Your task to perform on an android device: Go to display settings Image 0: 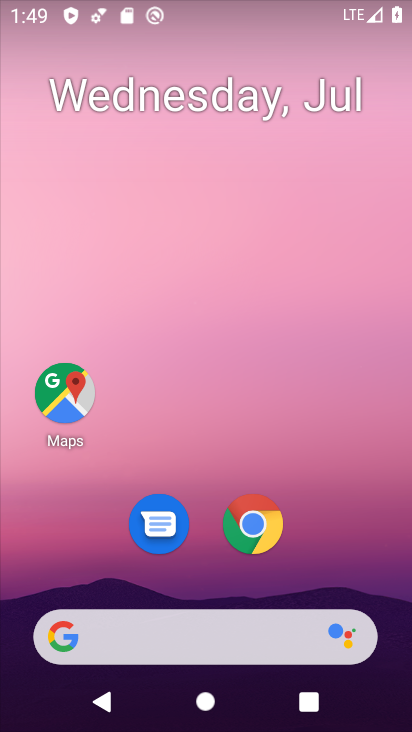
Step 0: drag from (319, 542) to (311, 39)
Your task to perform on an android device: Go to display settings Image 1: 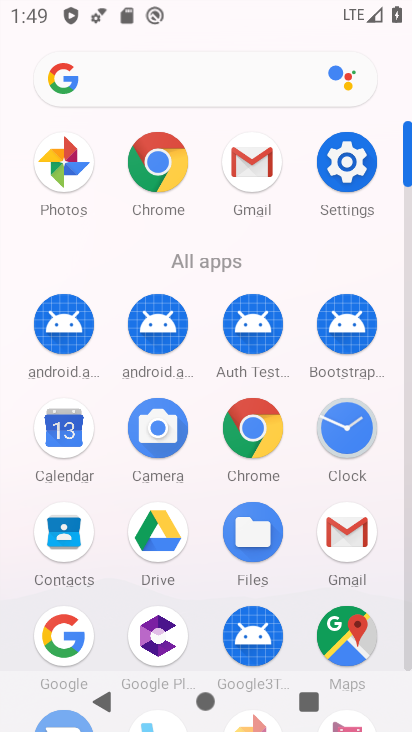
Step 1: click (359, 163)
Your task to perform on an android device: Go to display settings Image 2: 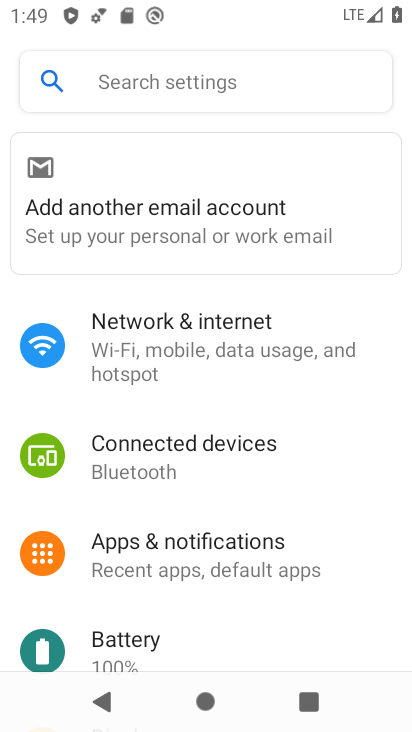
Step 2: drag from (220, 504) to (249, 51)
Your task to perform on an android device: Go to display settings Image 3: 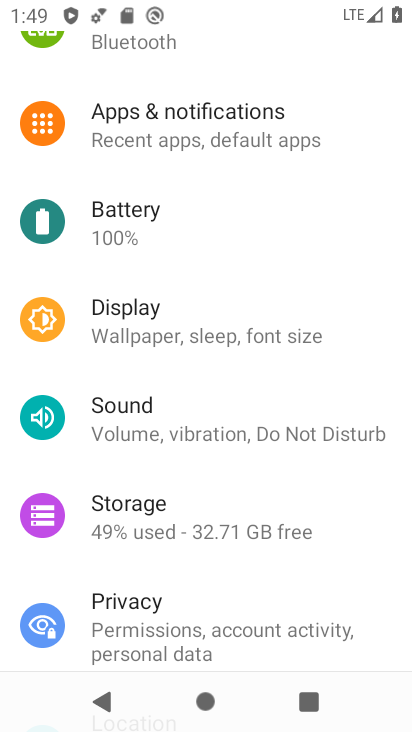
Step 3: click (210, 322)
Your task to perform on an android device: Go to display settings Image 4: 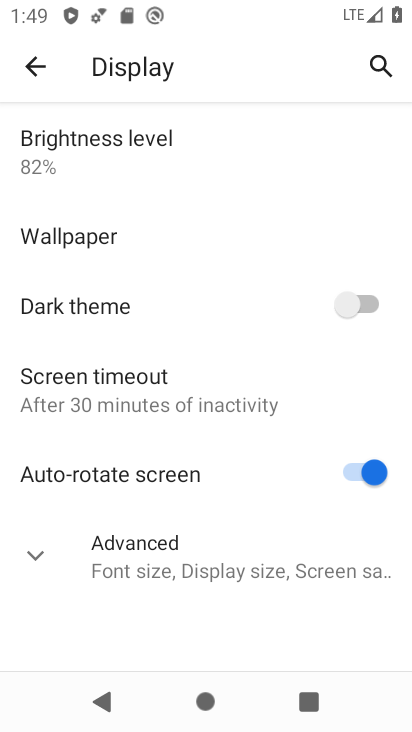
Step 4: click (35, 554)
Your task to perform on an android device: Go to display settings Image 5: 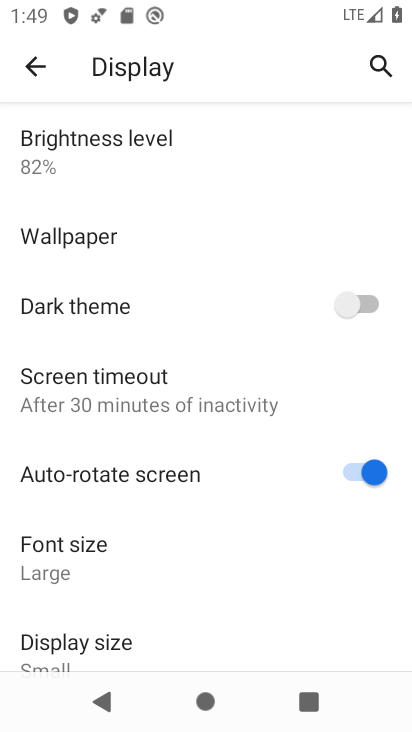
Step 5: task complete